Your task to perform on an android device: Add asus zenbook to the cart on newegg.com, then select checkout. Image 0: 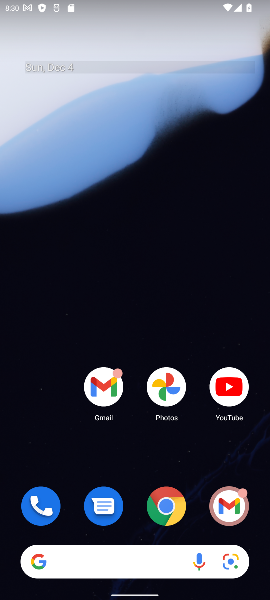
Step 0: click (161, 507)
Your task to perform on an android device: Add asus zenbook to the cart on newegg.com, then select checkout. Image 1: 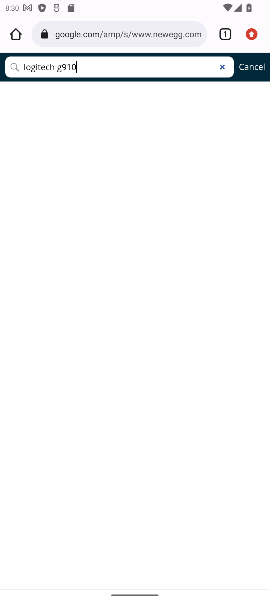
Step 1: click (137, 31)
Your task to perform on an android device: Add asus zenbook to the cart on newegg.com, then select checkout. Image 2: 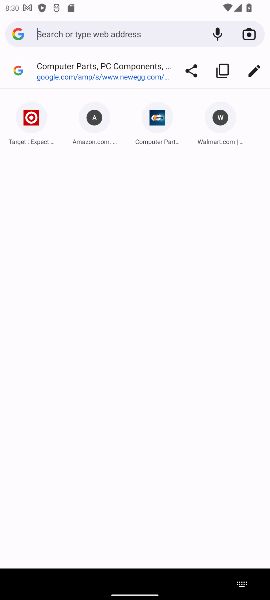
Step 2: type "newegg"
Your task to perform on an android device: Add asus zenbook to the cart on newegg.com, then select checkout. Image 3: 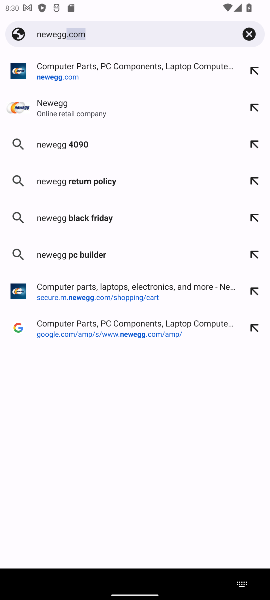
Step 3: click (49, 77)
Your task to perform on an android device: Add asus zenbook to the cart on newegg.com, then select checkout. Image 4: 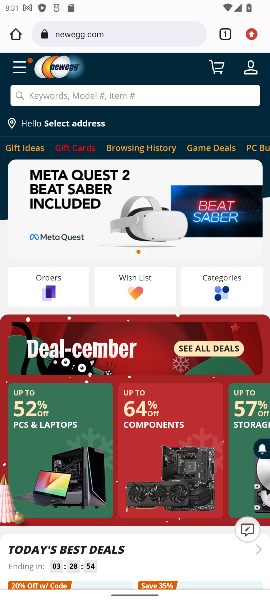
Step 4: click (115, 98)
Your task to perform on an android device: Add asus zenbook to the cart on newegg.com, then select checkout. Image 5: 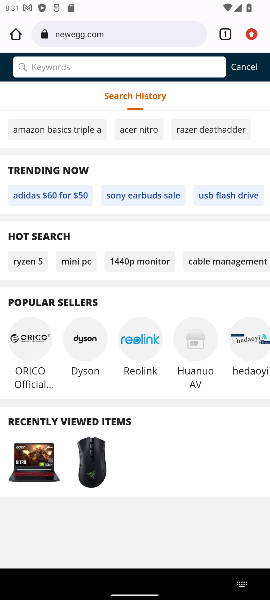
Step 5: type "asus zenbook"
Your task to perform on an android device: Add asus zenbook to the cart on newegg.com, then select checkout. Image 6: 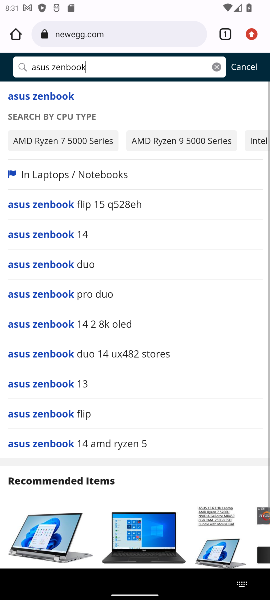
Step 6: drag from (125, 464) to (116, 102)
Your task to perform on an android device: Add asus zenbook to the cart on newegg.com, then select checkout. Image 7: 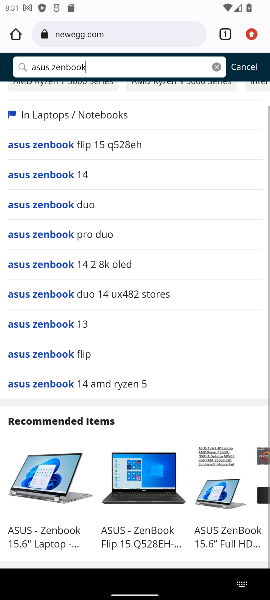
Step 7: click (50, 495)
Your task to perform on an android device: Add asus zenbook to the cart on newegg.com, then select checkout. Image 8: 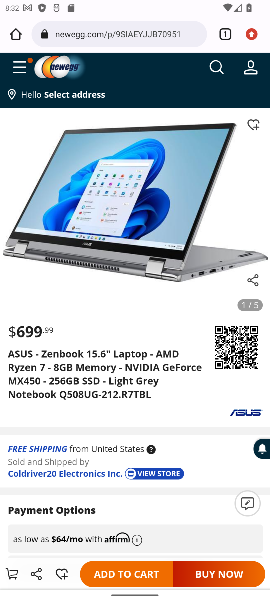
Step 8: click (107, 576)
Your task to perform on an android device: Add asus zenbook to the cart on newegg.com, then select checkout. Image 9: 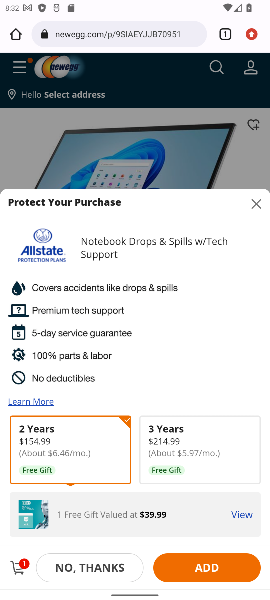
Step 9: click (106, 569)
Your task to perform on an android device: Add asus zenbook to the cart on newegg.com, then select checkout. Image 10: 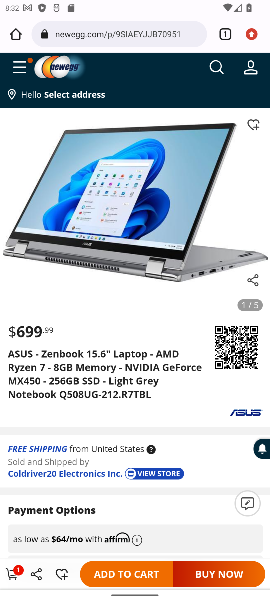
Step 10: click (15, 571)
Your task to perform on an android device: Add asus zenbook to the cart on newegg.com, then select checkout. Image 11: 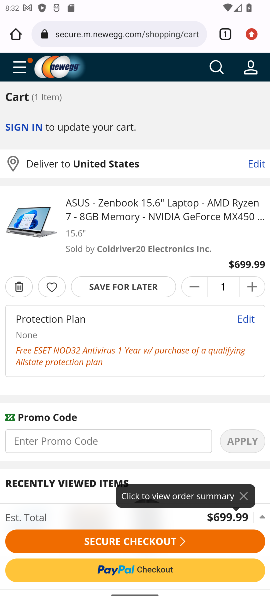
Step 11: click (170, 505)
Your task to perform on an android device: Add asus zenbook to the cart on newegg.com, then select checkout. Image 12: 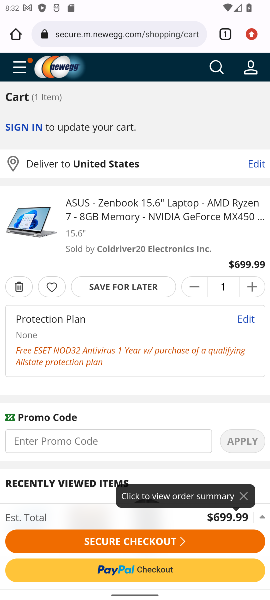
Step 12: click (134, 537)
Your task to perform on an android device: Add asus zenbook to the cart on newegg.com, then select checkout. Image 13: 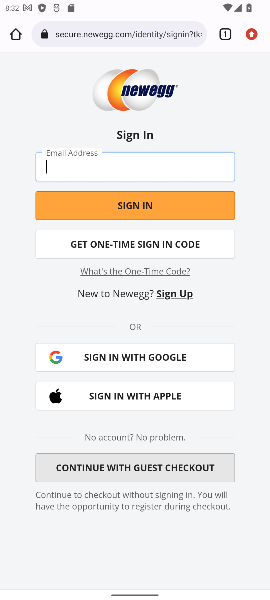
Step 13: task complete